Your task to perform on an android device: Open Wikipedia Image 0: 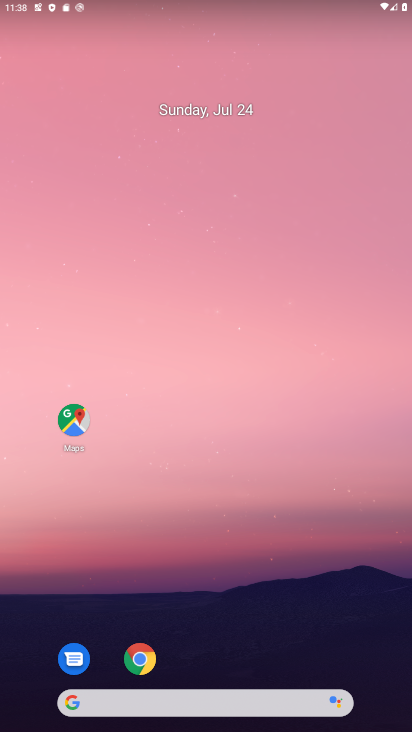
Step 0: click (111, 701)
Your task to perform on an android device: Open Wikipedia Image 1: 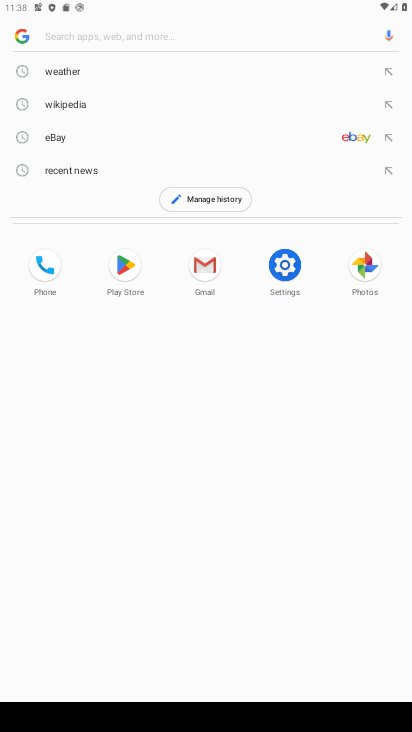
Step 1: click (63, 98)
Your task to perform on an android device: Open Wikipedia Image 2: 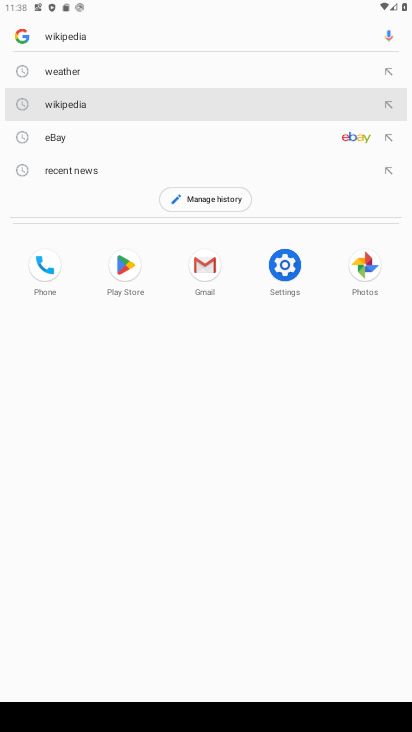
Step 2: click (63, 102)
Your task to perform on an android device: Open Wikipedia Image 3: 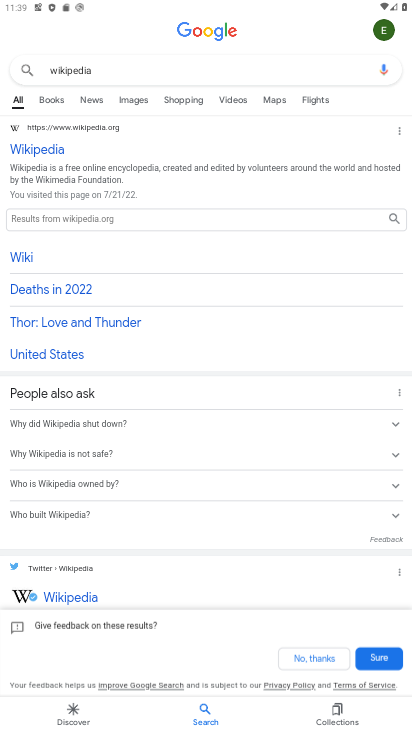
Step 3: task complete